Your task to perform on an android device: change timer sound Image 0: 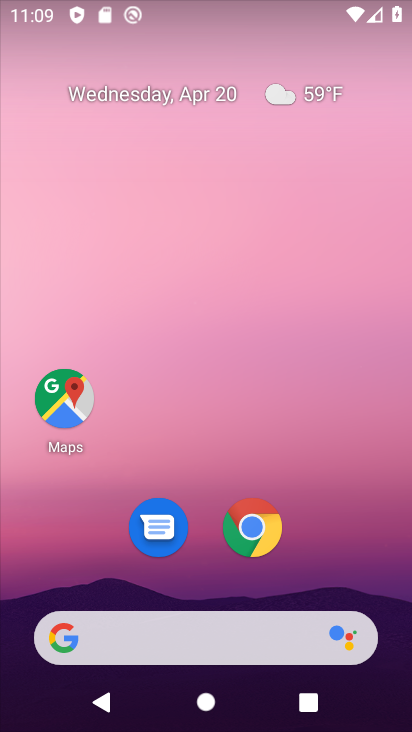
Step 0: drag from (362, 559) to (362, 122)
Your task to perform on an android device: change timer sound Image 1: 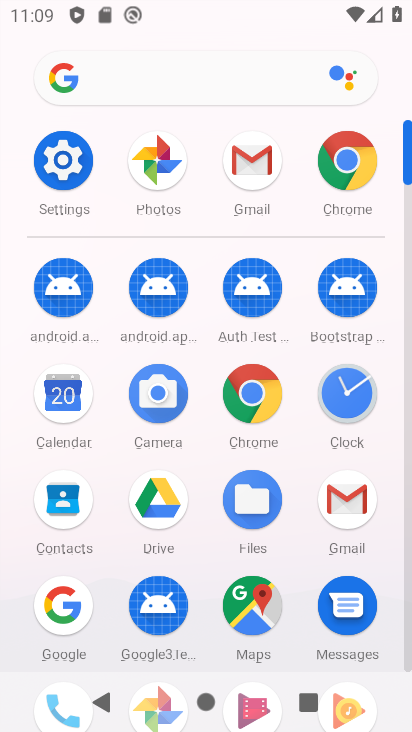
Step 1: click (346, 388)
Your task to perform on an android device: change timer sound Image 2: 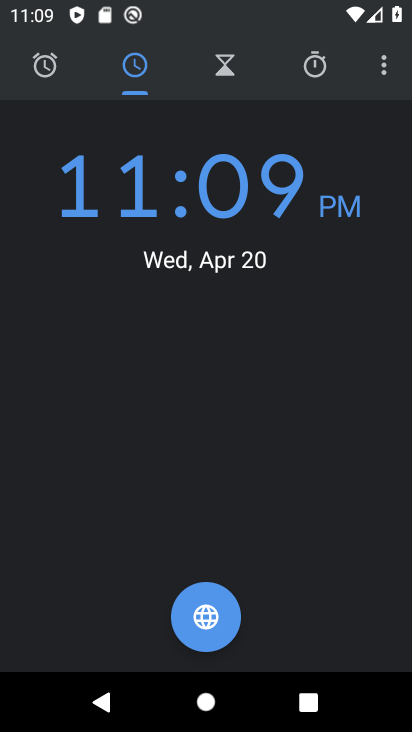
Step 2: click (389, 74)
Your task to perform on an android device: change timer sound Image 3: 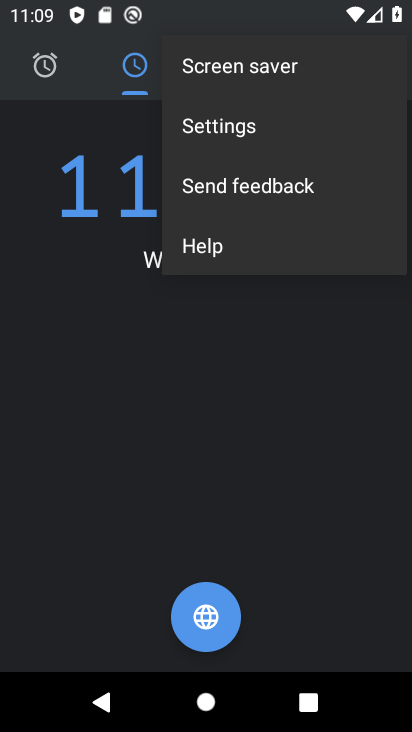
Step 3: click (229, 133)
Your task to perform on an android device: change timer sound Image 4: 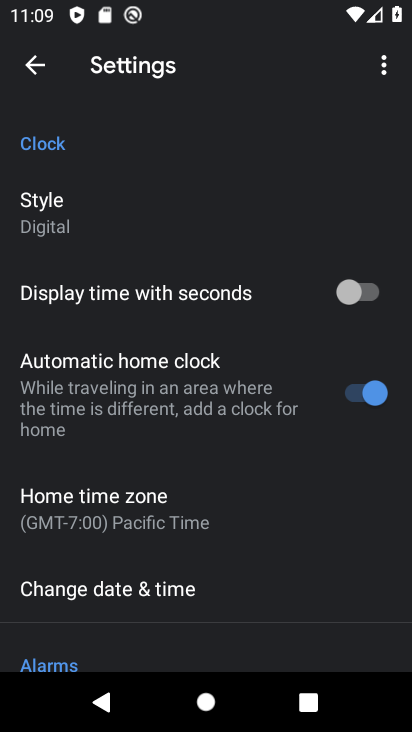
Step 4: drag from (239, 531) to (235, 195)
Your task to perform on an android device: change timer sound Image 5: 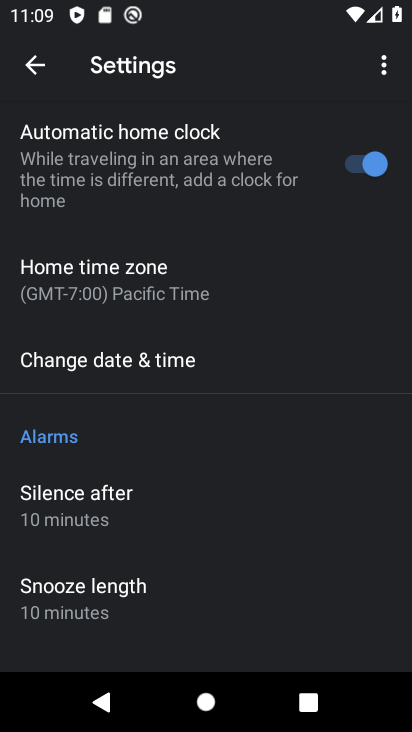
Step 5: drag from (222, 555) to (276, 204)
Your task to perform on an android device: change timer sound Image 6: 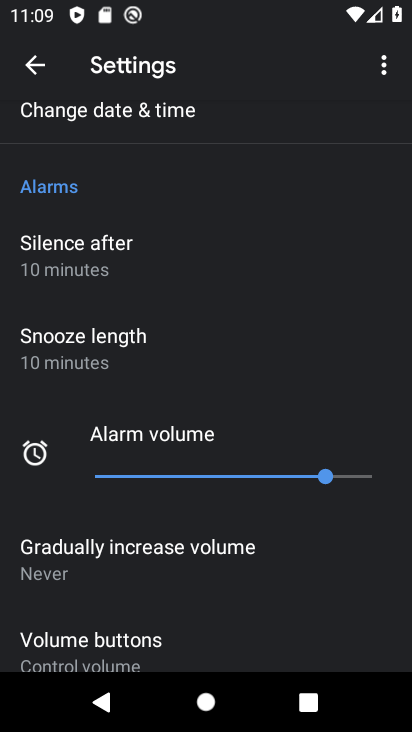
Step 6: drag from (286, 545) to (280, 255)
Your task to perform on an android device: change timer sound Image 7: 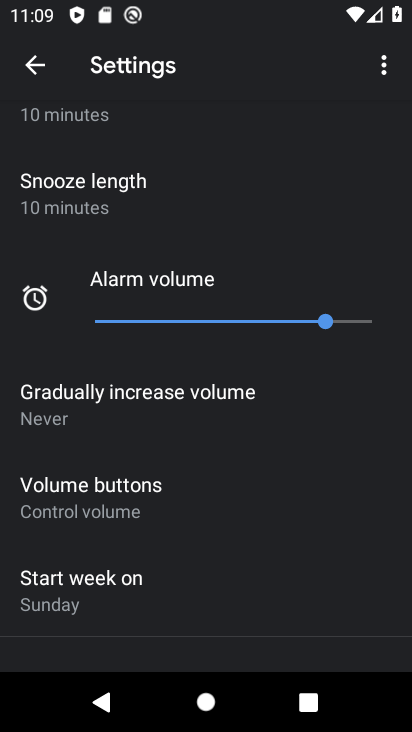
Step 7: drag from (286, 579) to (259, 164)
Your task to perform on an android device: change timer sound Image 8: 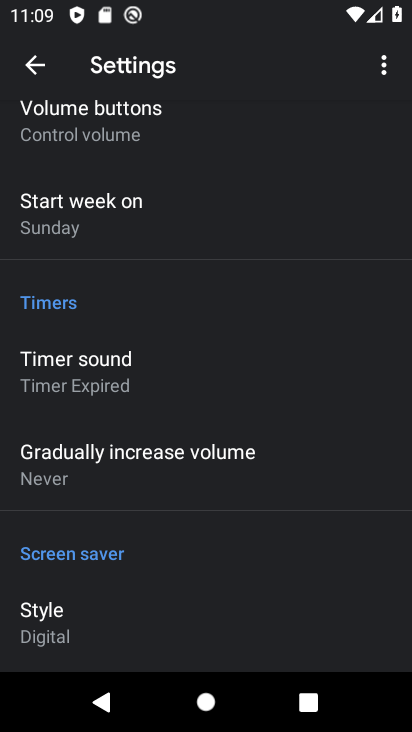
Step 8: click (152, 381)
Your task to perform on an android device: change timer sound Image 9: 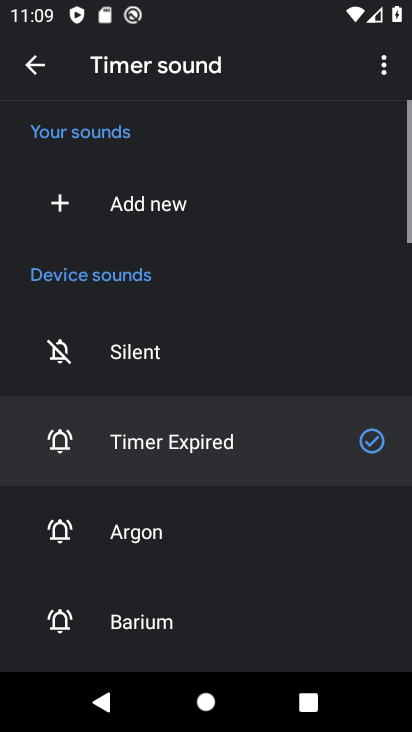
Step 9: click (201, 536)
Your task to perform on an android device: change timer sound Image 10: 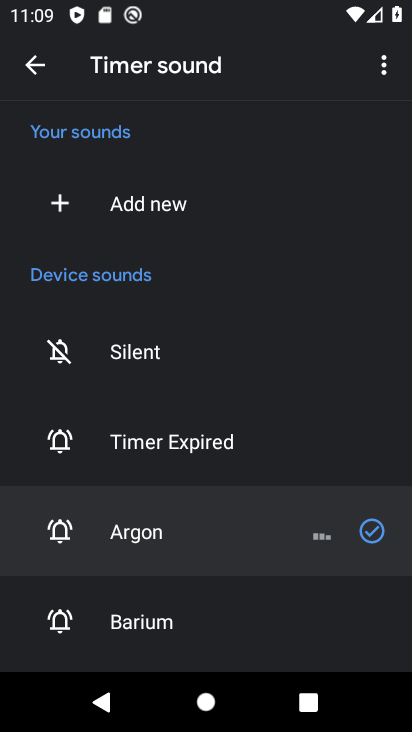
Step 10: task complete